Your task to perform on an android device: Open Chrome and go to settings Image 0: 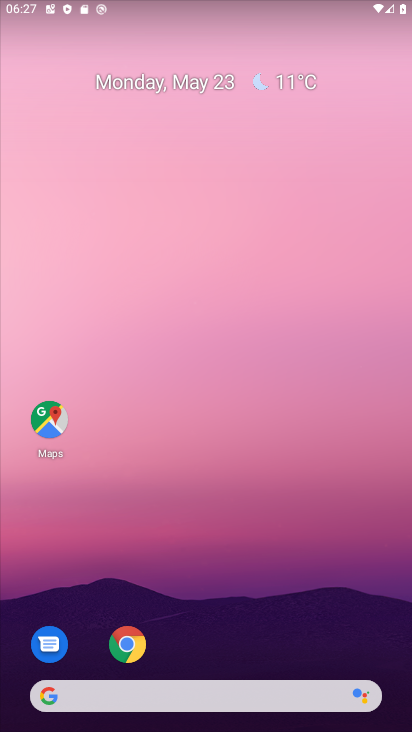
Step 0: click (126, 647)
Your task to perform on an android device: Open Chrome and go to settings Image 1: 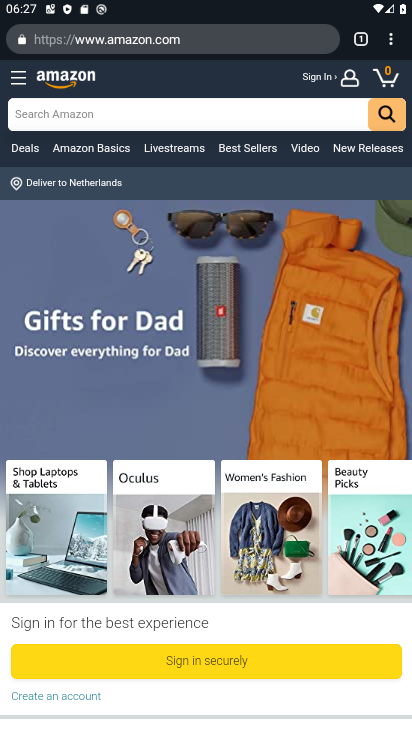
Step 1: click (393, 45)
Your task to perform on an android device: Open Chrome and go to settings Image 2: 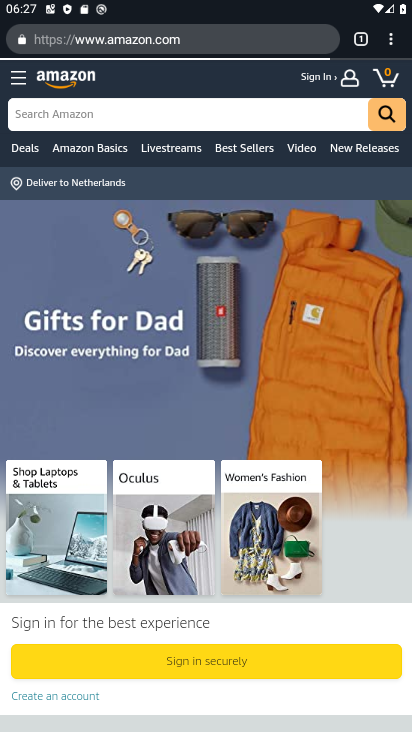
Step 2: click (392, 36)
Your task to perform on an android device: Open Chrome and go to settings Image 3: 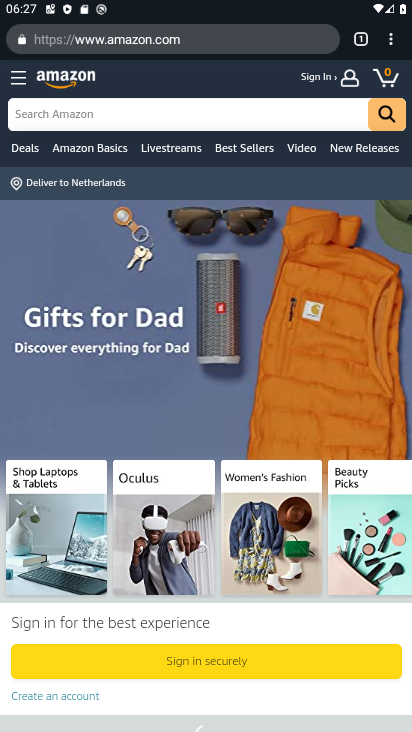
Step 3: click (392, 37)
Your task to perform on an android device: Open Chrome and go to settings Image 4: 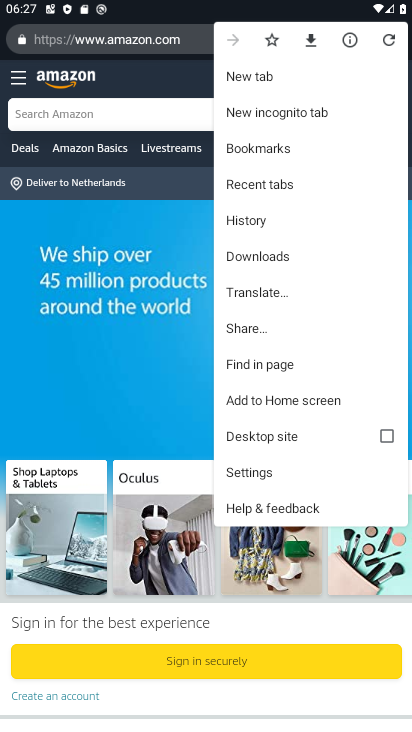
Step 4: click (257, 470)
Your task to perform on an android device: Open Chrome and go to settings Image 5: 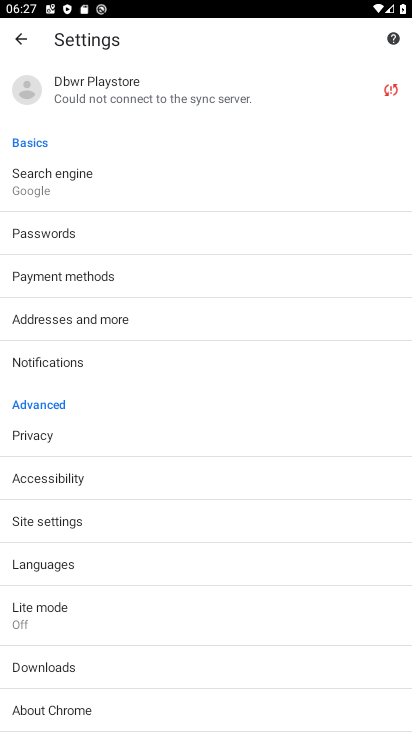
Step 5: task complete